Your task to perform on an android device: turn on the 24-hour format for clock Image 0: 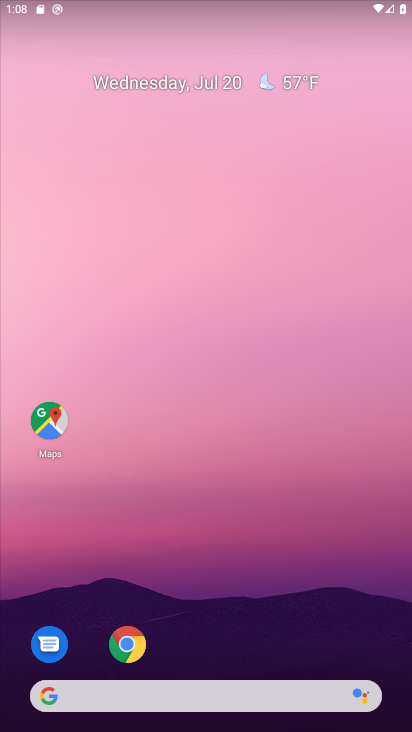
Step 0: drag from (259, 535) to (284, 225)
Your task to perform on an android device: turn on the 24-hour format for clock Image 1: 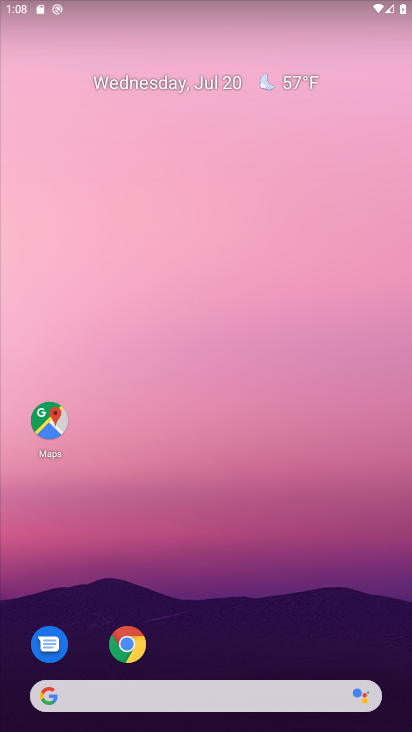
Step 1: drag from (230, 530) to (270, 301)
Your task to perform on an android device: turn on the 24-hour format for clock Image 2: 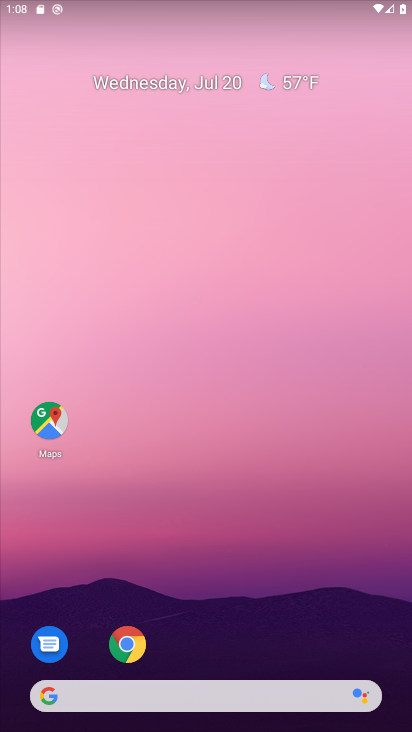
Step 2: drag from (250, 504) to (313, 242)
Your task to perform on an android device: turn on the 24-hour format for clock Image 3: 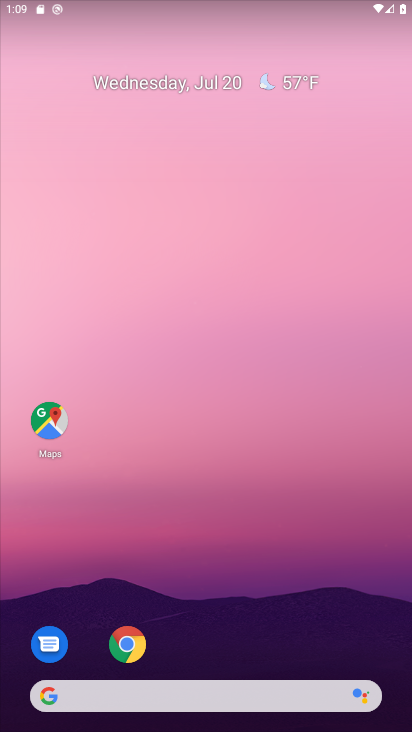
Step 3: drag from (295, 539) to (277, 217)
Your task to perform on an android device: turn on the 24-hour format for clock Image 4: 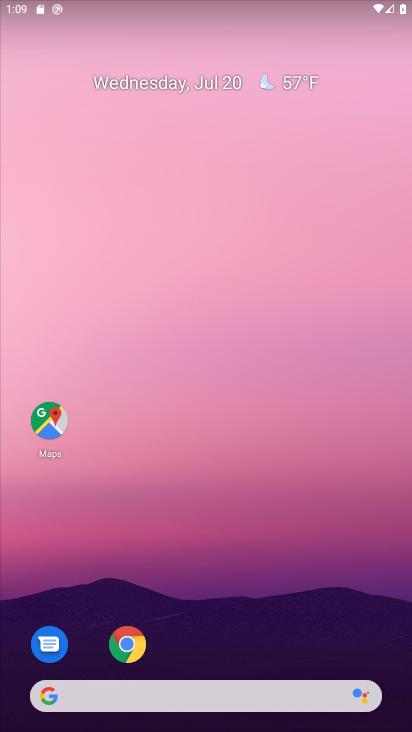
Step 4: drag from (277, 506) to (296, 43)
Your task to perform on an android device: turn on the 24-hour format for clock Image 5: 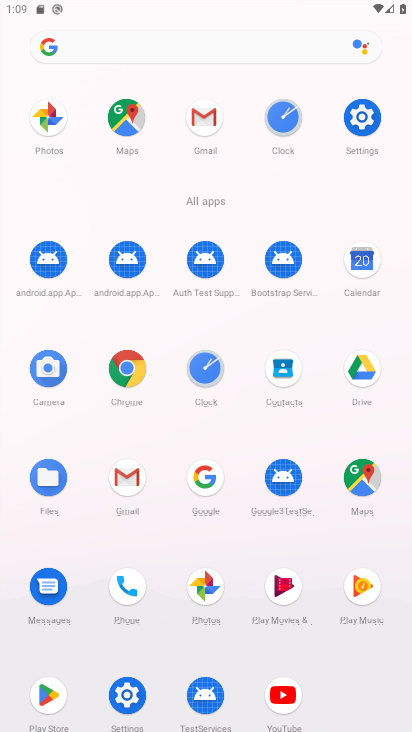
Step 5: click (203, 376)
Your task to perform on an android device: turn on the 24-hour format for clock Image 6: 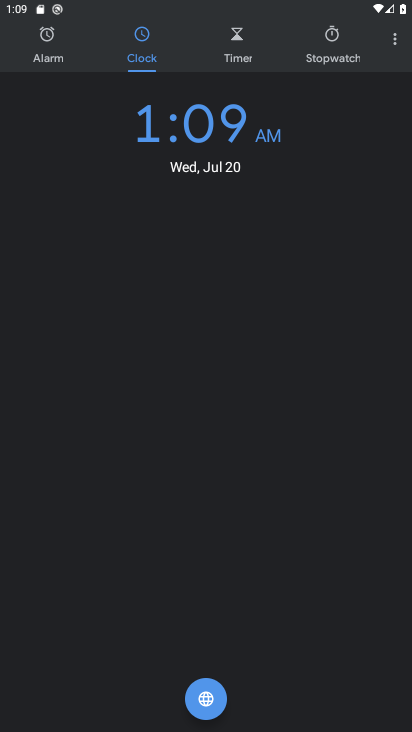
Step 6: task complete